Your task to perform on an android device: What's the weather today? Image 0: 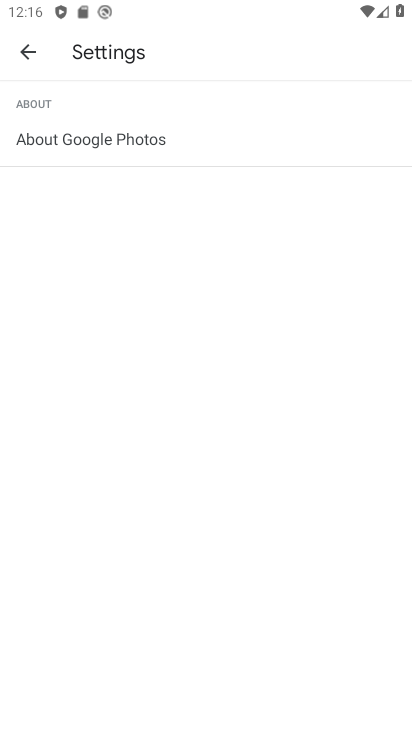
Step 0: press home button
Your task to perform on an android device: What's the weather today? Image 1: 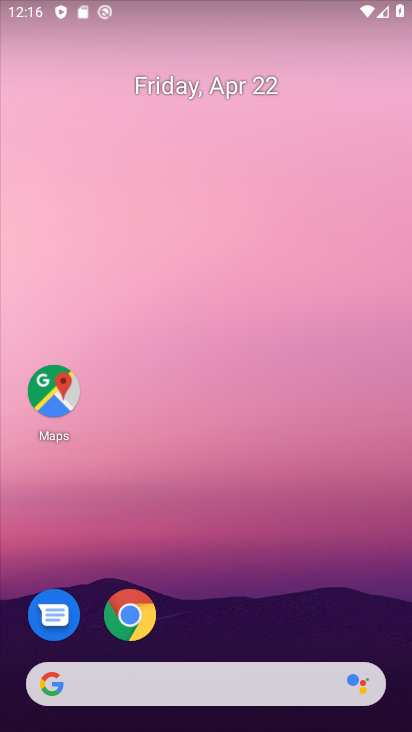
Step 1: drag from (15, 223) to (393, 269)
Your task to perform on an android device: What's the weather today? Image 2: 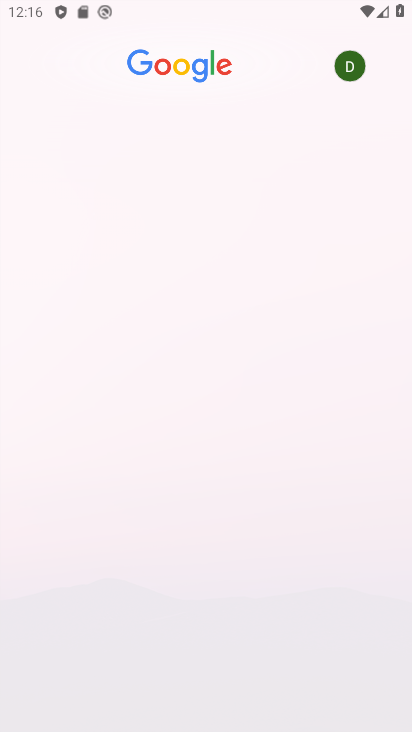
Step 2: drag from (195, 287) to (196, 396)
Your task to perform on an android device: What's the weather today? Image 3: 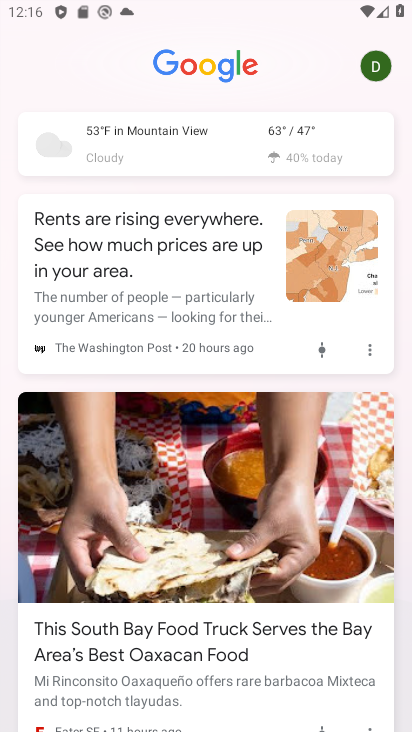
Step 3: click (277, 141)
Your task to perform on an android device: What's the weather today? Image 4: 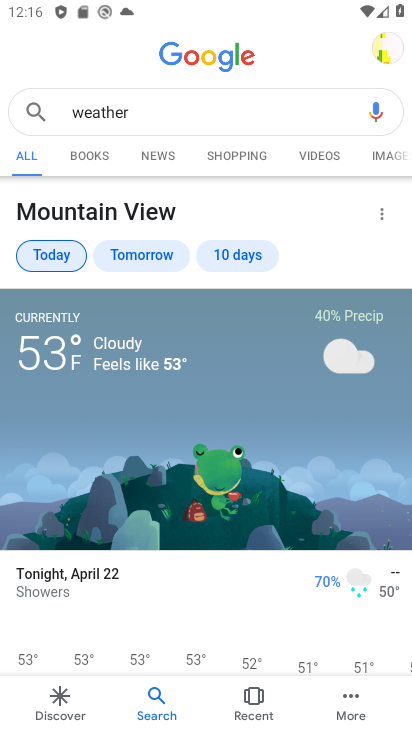
Step 4: task complete